Your task to perform on an android device: Go to ESPN.com Image 0: 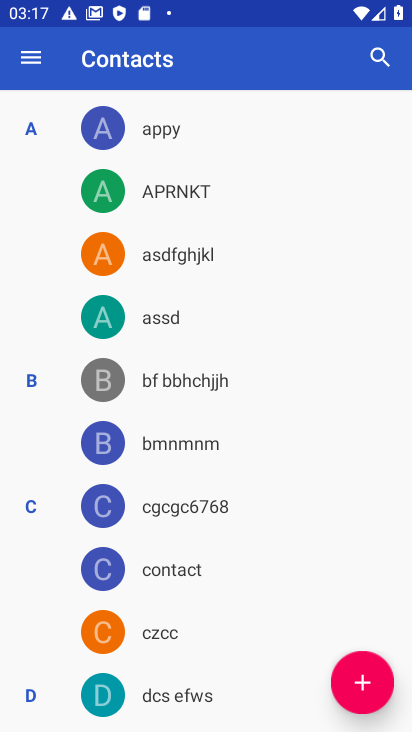
Step 0: press home button
Your task to perform on an android device: Go to ESPN.com Image 1: 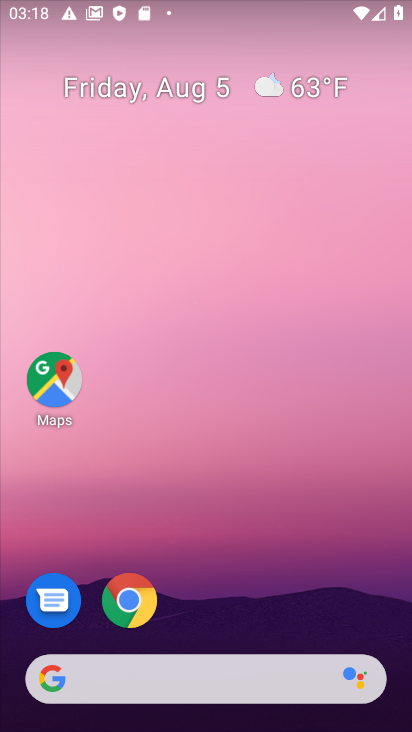
Step 1: click (131, 601)
Your task to perform on an android device: Go to ESPN.com Image 2: 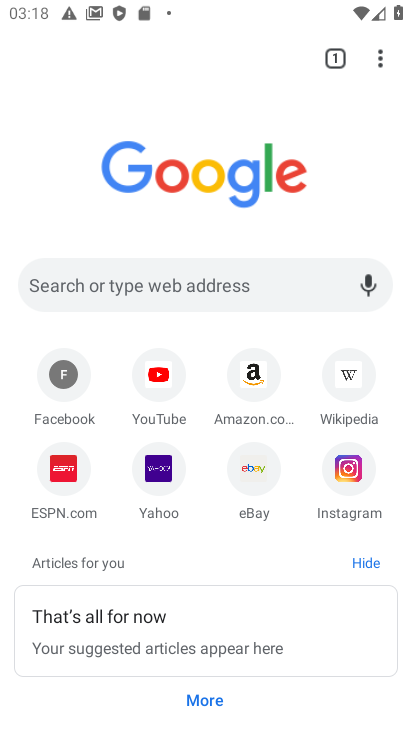
Step 2: click (62, 473)
Your task to perform on an android device: Go to ESPN.com Image 3: 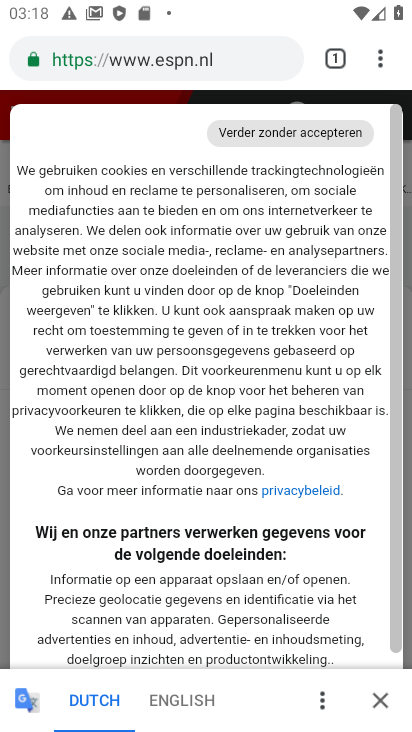
Step 3: task complete